Your task to perform on an android device: toggle show notifications on the lock screen Image 0: 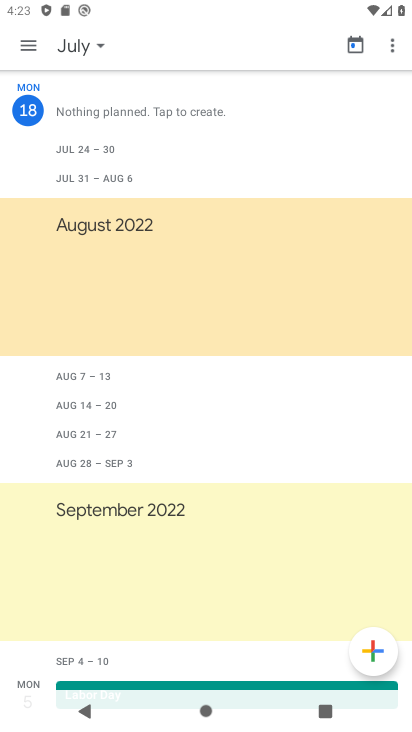
Step 0: press home button
Your task to perform on an android device: toggle show notifications on the lock screen Image 1: 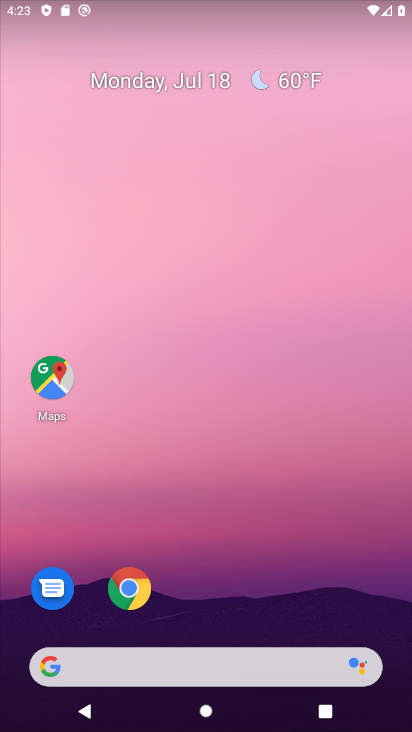
Step 1: drag from (230, 623) to (259, 69)
Your task to perform on an android device: toggle show notifications on the lock screen Image 2: 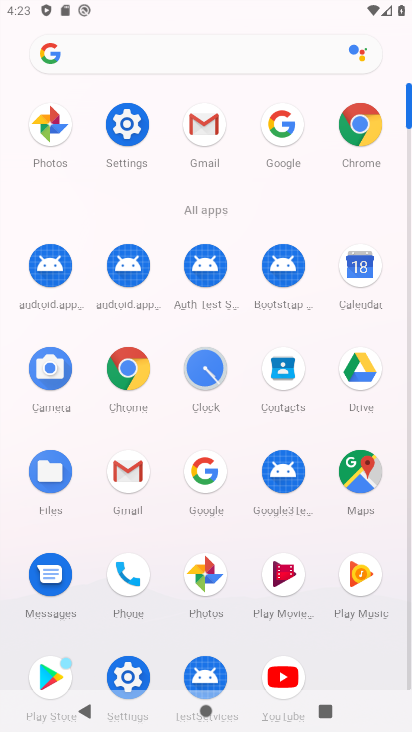
Step 2: click (125, 666)
Your task to perform on an android device: toggle show notifications on the lock screen Image 3: 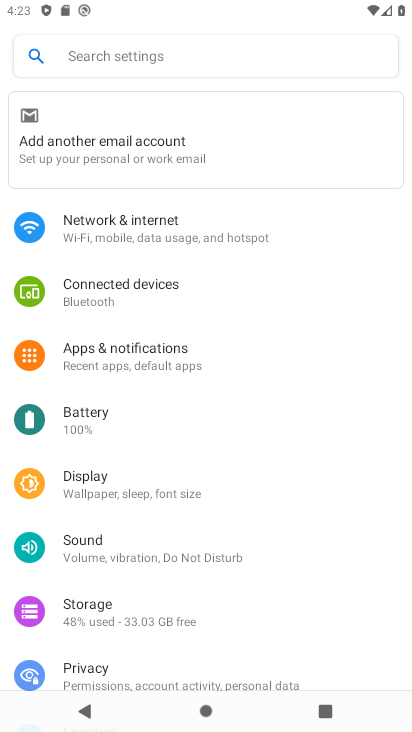
Step 3: click (177, 356)
Your task to perform on an android device: toggle show notifications on the lock screen Image 4: 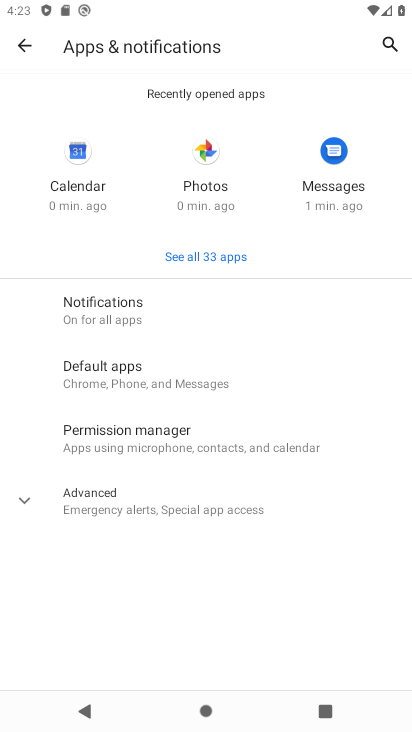
Step 4: click (146, 315)
Your task to perform on an android device: toggle show notifications on the lock screen Image 5: 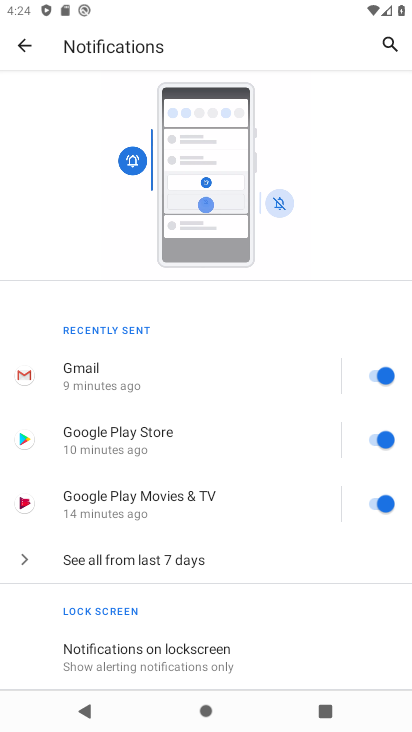
Step 5: click (221, 660)
Your task to perform on an android device: toggle show notifications on the lock screen Image 6: 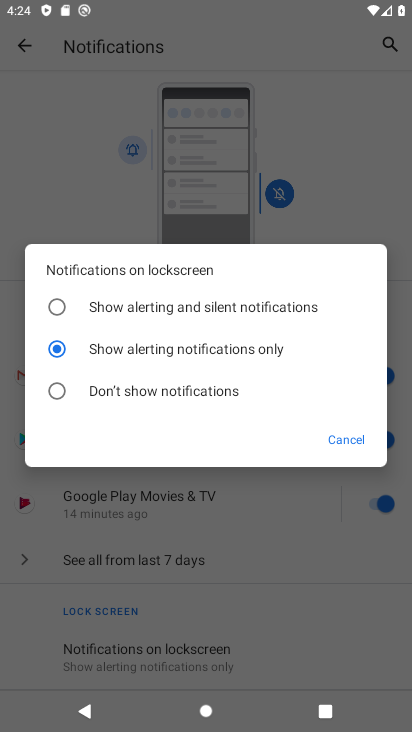
Step 6: task complete